Your task to perform on an android device: turn off wifi Image 0: 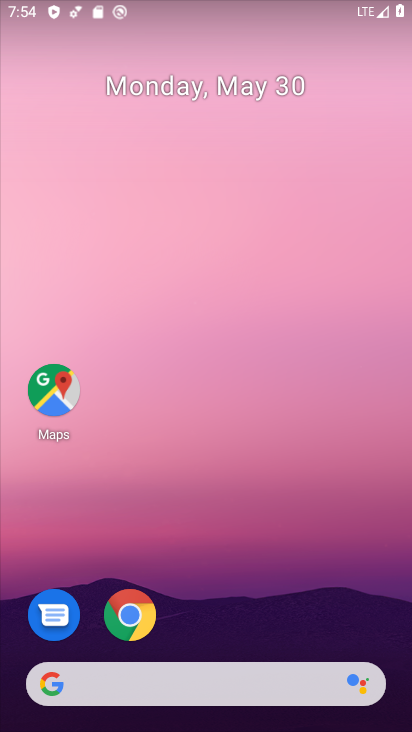
Step 0: drag from (235, 0) to (179, 487)
Your task to perform on an android device: turn off wifi Image 1: 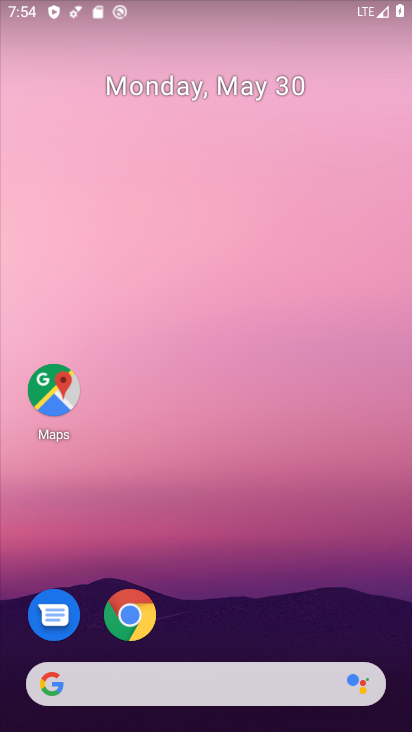
Step 1: drag from (197, 1) to (194, 537)
Your task to perform on an android device: turn off wifi Image 2: 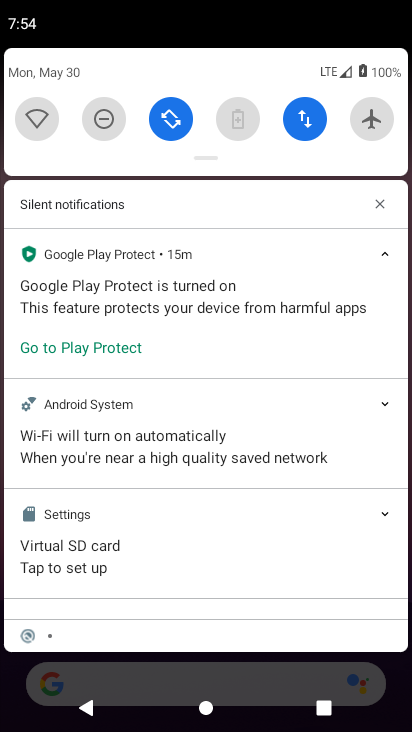
Step 2: click (236, 15)
Your task to perform on an android device: turn off wifi Image 3: 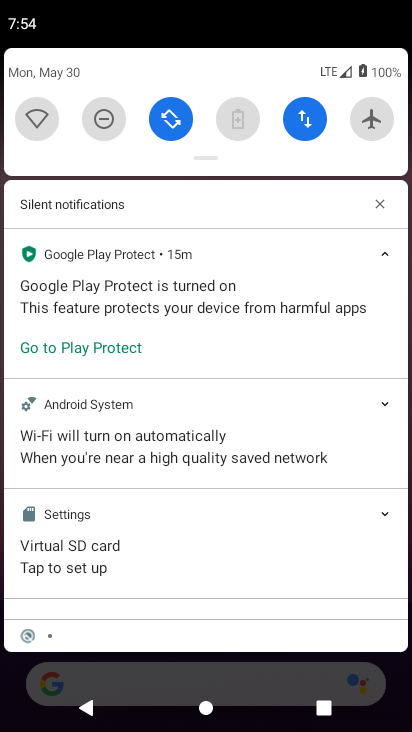
Step 3: task complete